Your task to perform on an android device: star an email in the gmail app Image 0: 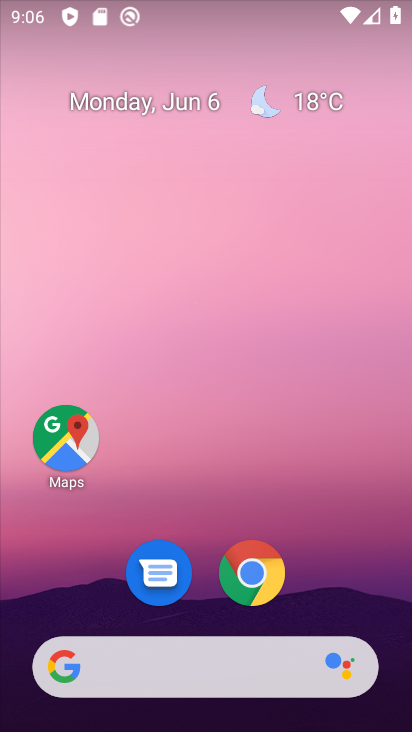
Step 0: drag from (215, 622) to (222, 141)
Your task to perform on an android device: star an email in the gmail app Image 1: 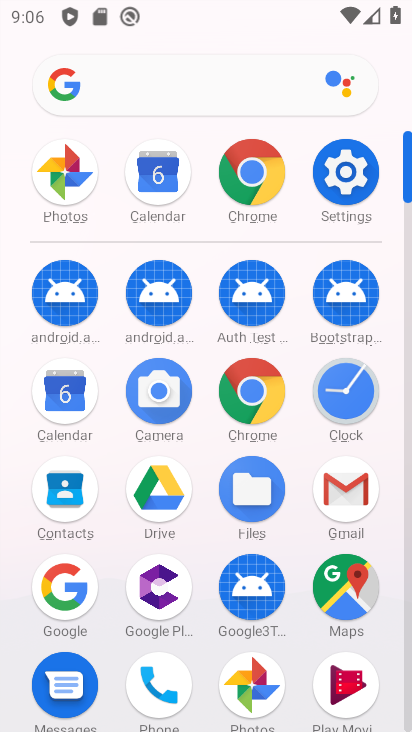
Step 1: click (343, 491)
Your task to perform on an android device: star an email in the gmail app Image 2: 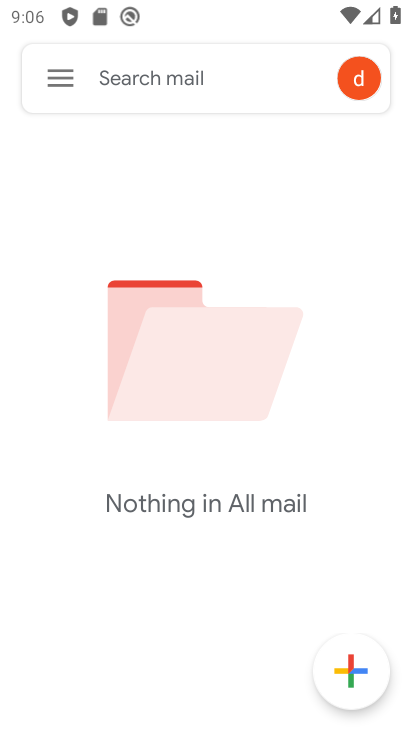
Step 2: task complete